Your task to perform on an android device: Open Amazon Image 0: 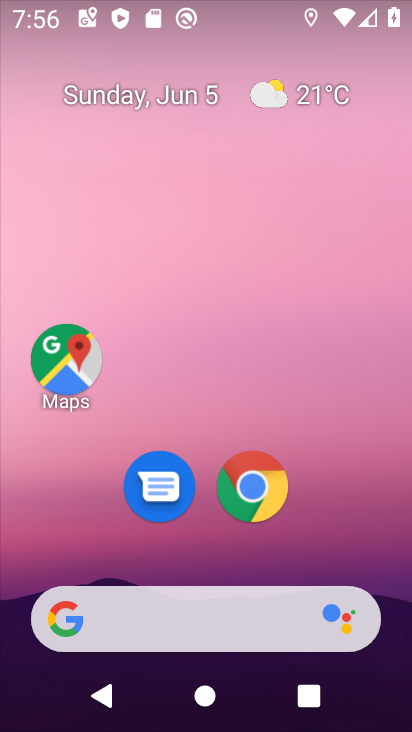
Step 0: click (261, 492)
Your task to perform on an android device: Open Amazon Image 1: 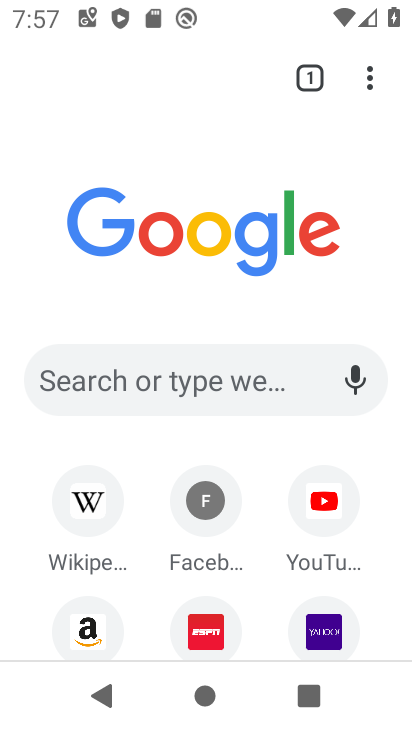
Step 1: click (103, 613)
Your task to perform on an android device: Open Amazon Image 2: 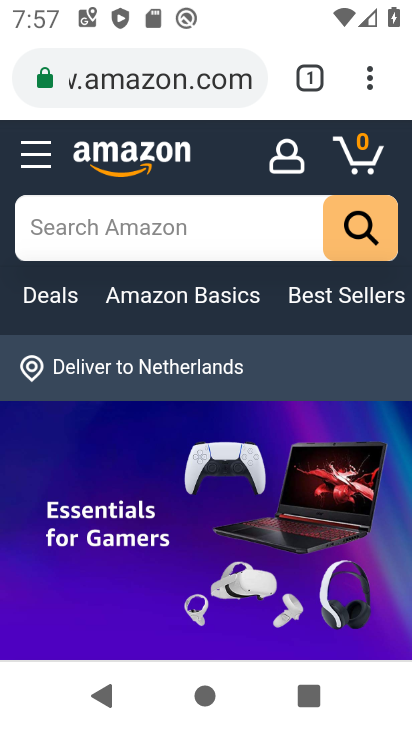
Step 2: task complete